Your task to perform on an android device: Open Chrome and go to settings Image 0: 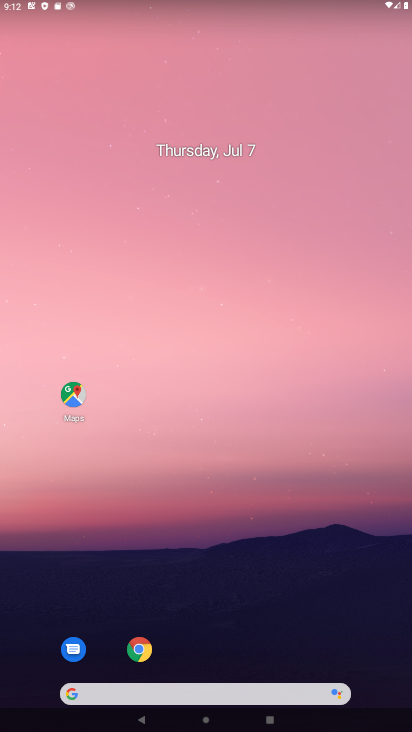
Step 0: click (139, 647)
Your task to perform on an android device: Open Chrome and go to settings Image 1: 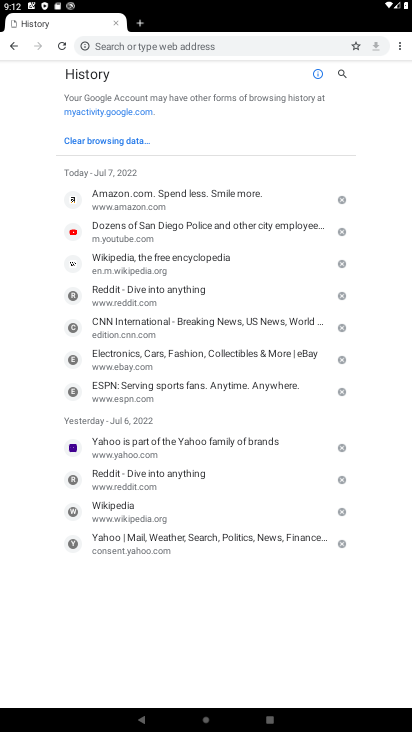
Step 1: click (401, 49)
Your task to perform on an android device: Open Chrome and go to settings Image 2: 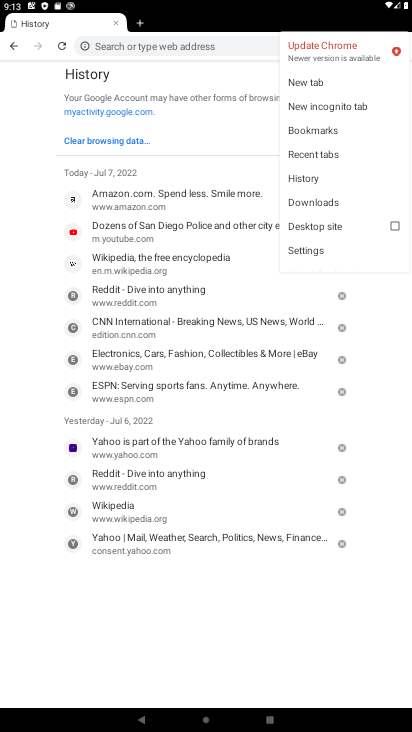
Step 2: click (303, 250)
Your task to perform on an android device: Open Chrome and go to settings Image 3: 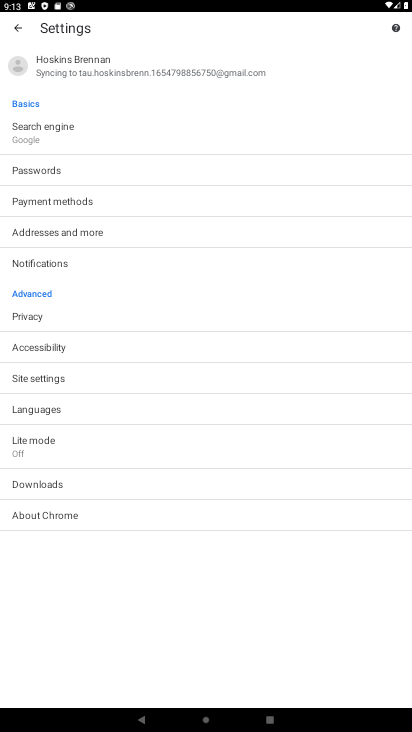
Step 3: task complete